Your task to perform on an android device: Go to settings Image 0: 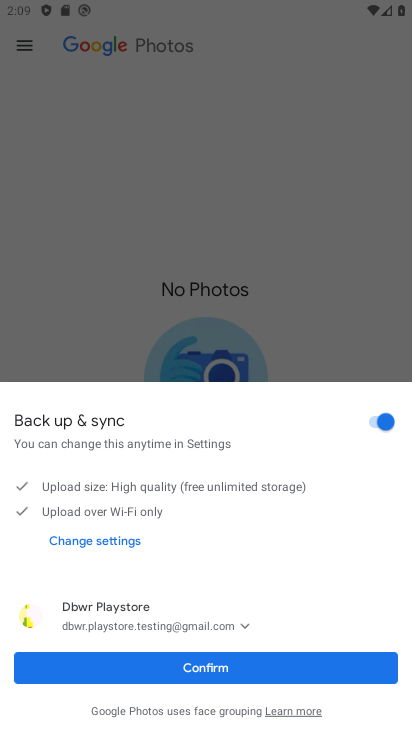
Step 0: click (222, 666)
Your task to perform on an android device: Go to settings Image 1: 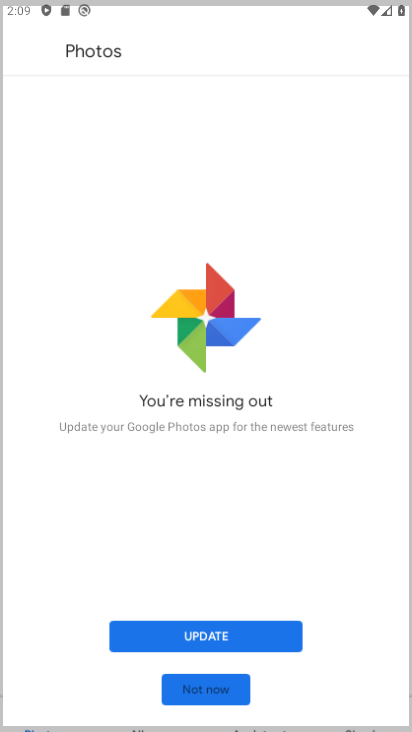
Step 1: press home button
Your task to perform on an android device: Go to settings Image 2: 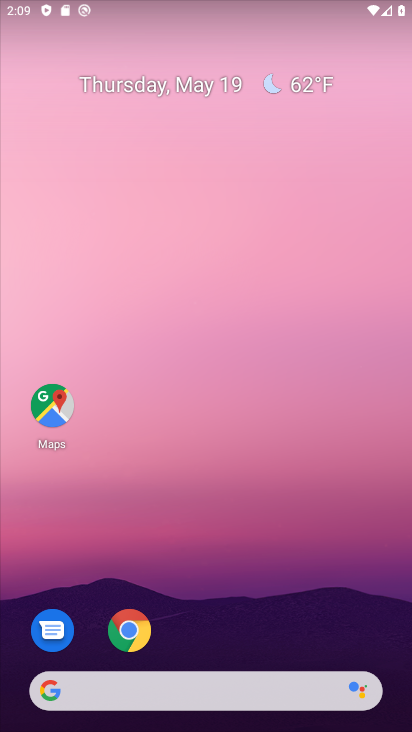
Step 2: drag from (326, 505) to (326, 211)
Your task to perform on an android device: Go to settings Image 3: 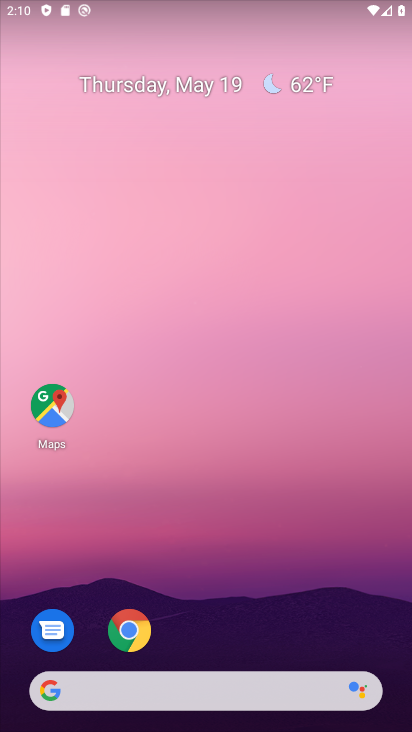
Step 3: drag from (368, 618) to (330, 258)
Your task to perform on an android device: Go to settings Image 4: 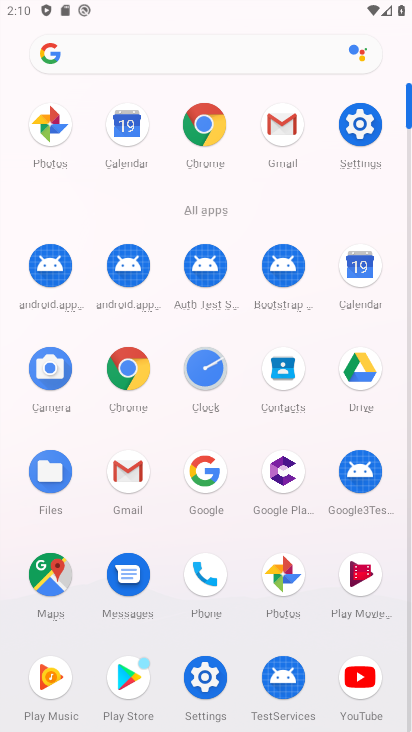
Step 4: click (368, 111)
Your task to perform on an android device: Go to settings Image 5: 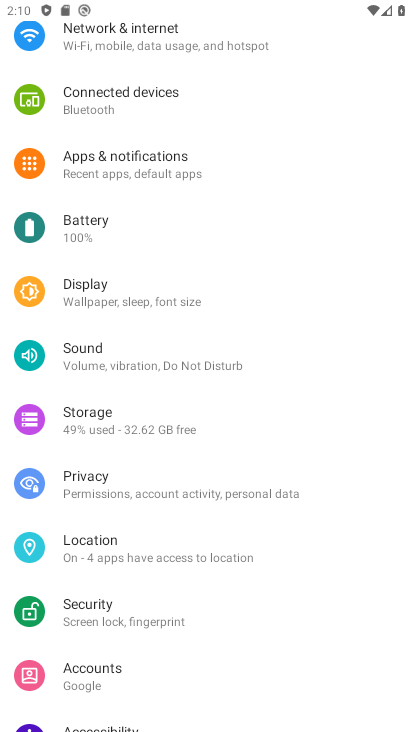
Step 5: task complete